Your task to perform on an android device: Search for custom wallets on etsy. Image 0: 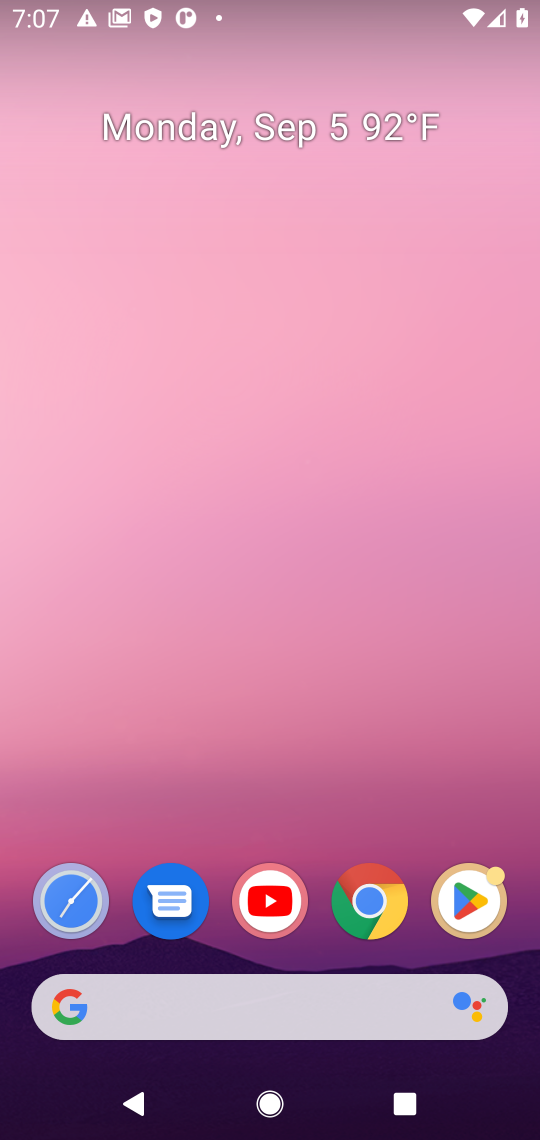
Step 0: click (374, 895)
Your task to perform on an android device: Search for custom wallets on etsy. Image 1: 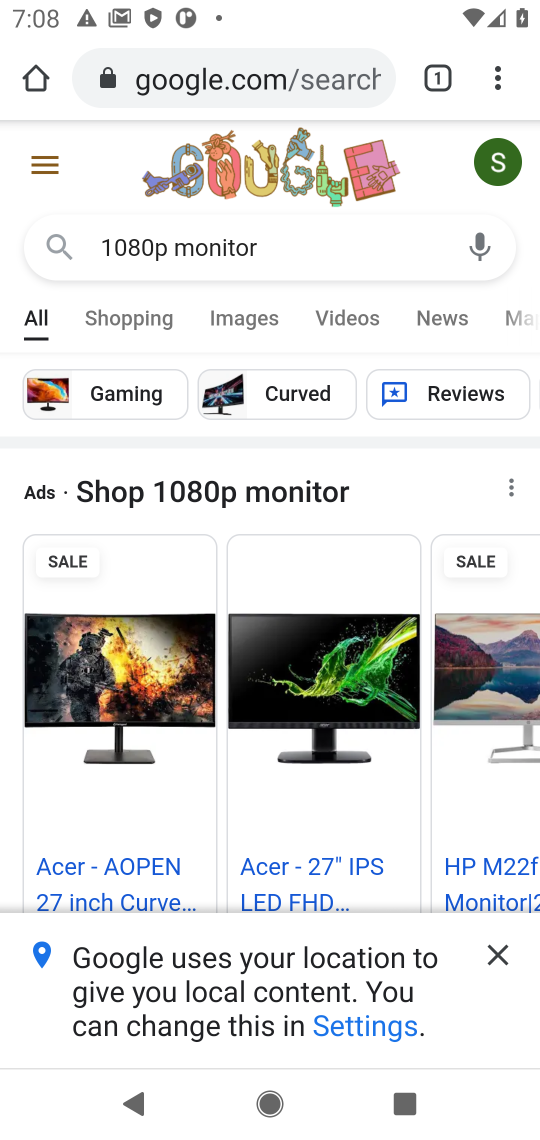
Step 1: click (271, 252)
Your task to perform on an android device: Search for custom wallets on etsy. Image 2: 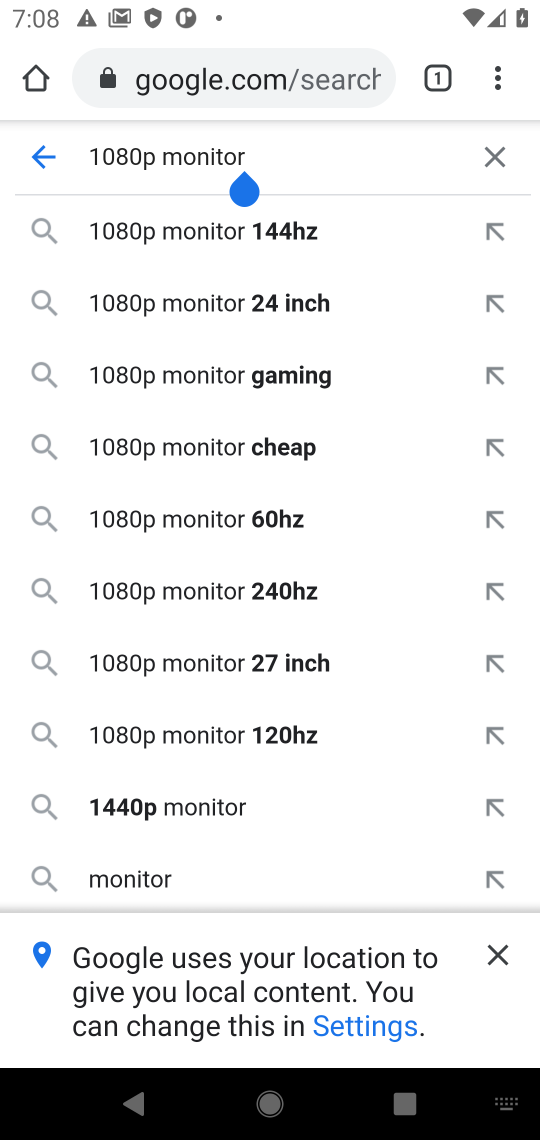
Step 2: click (486, 171)
Your task to perform on an android device: Search for custom wallets on etsy. Image 3: 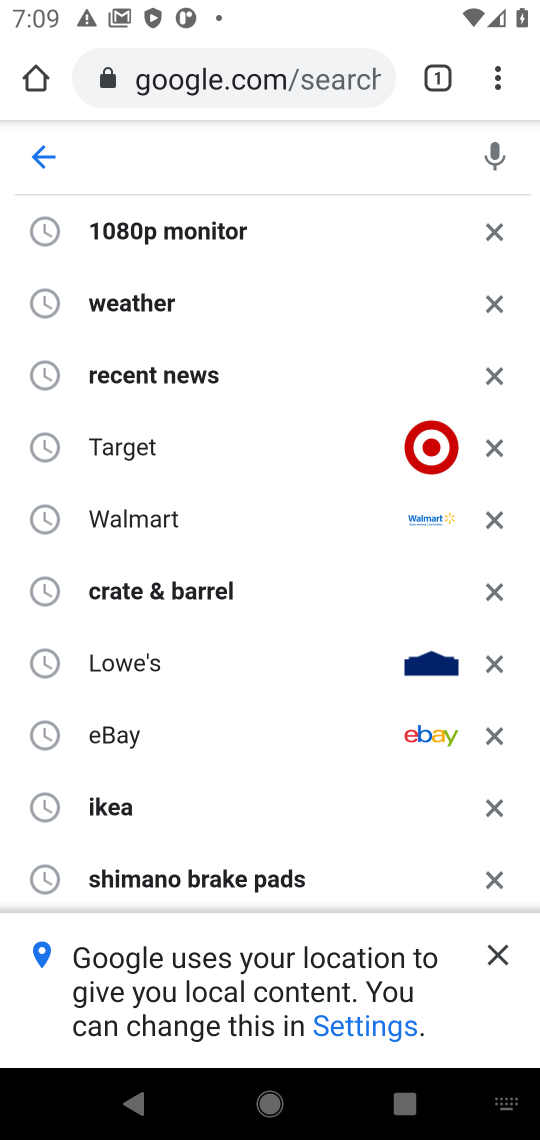
Step 3: type "esty"
Your task to perform on an android device: Search for custom wallets on etsy. Image 4: 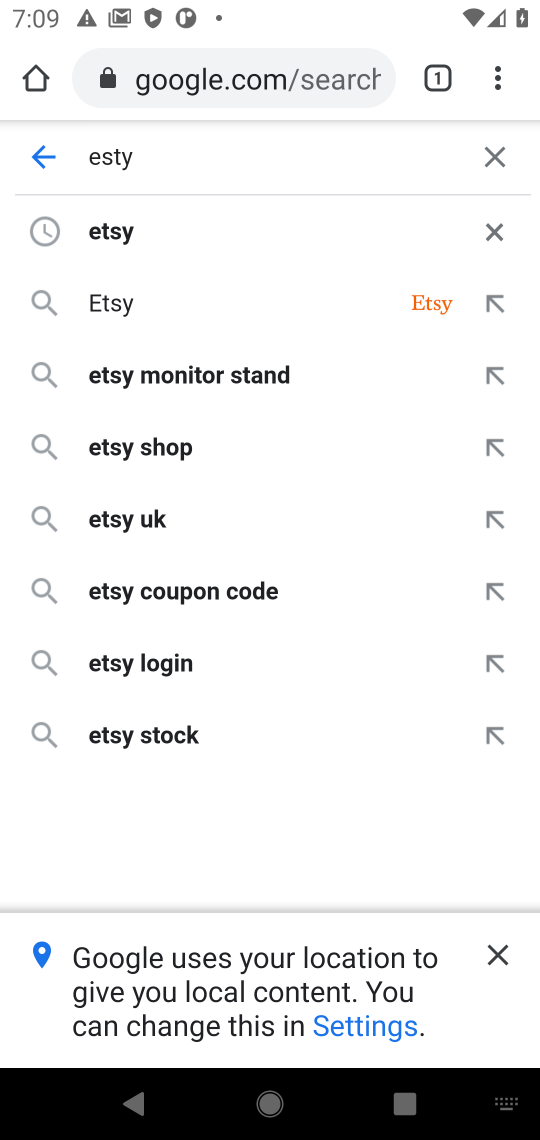
Step 4: click (259, 213)
Your task to perform on an android device: Search for custom wallets on etsy. Image 5: 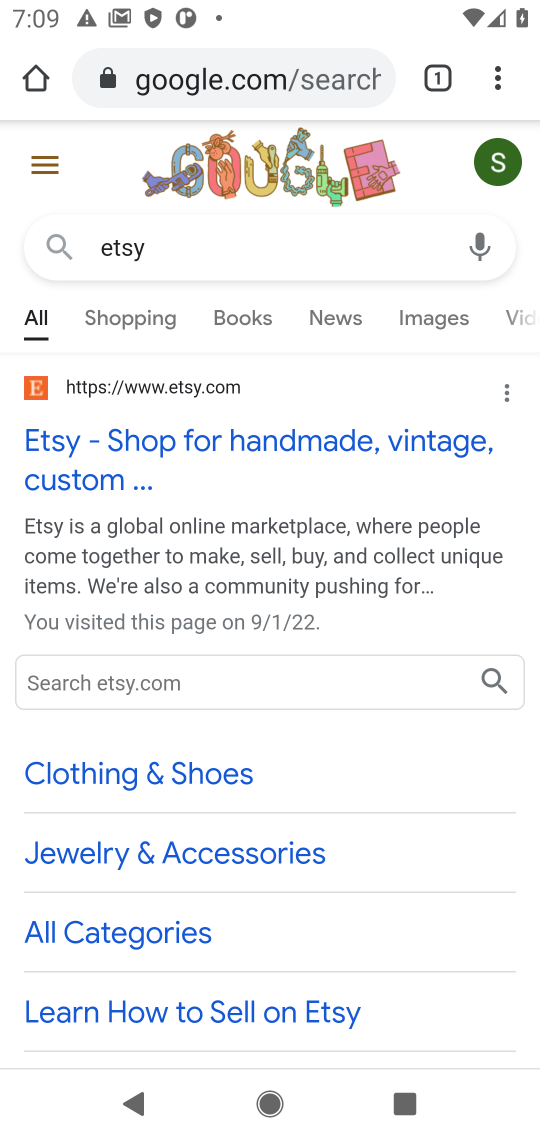
Step 5: click (88, 419)
Your task to perform on an android device: Search for custom wallets on etsy. Image 6: 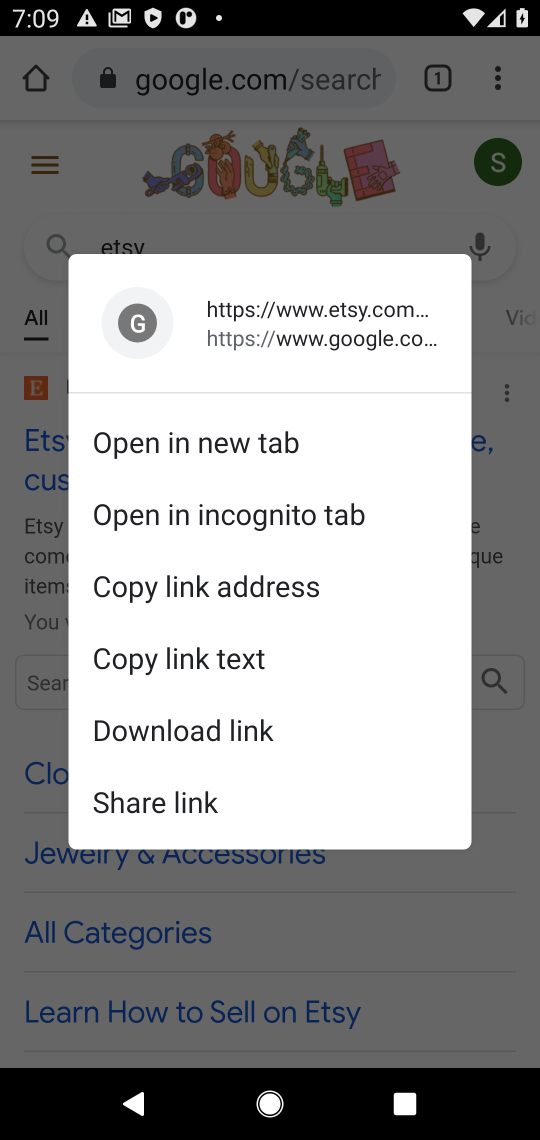
Step 6: click (215, 459)
Your task to perform on an android device: Search for custom wallets on etsy. Image 7: 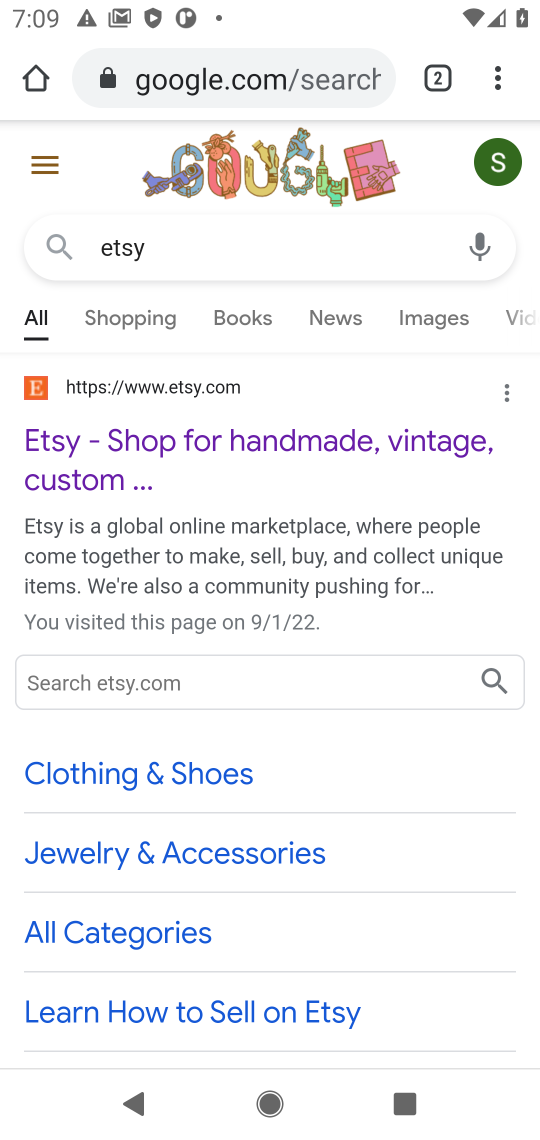
Step 7: click (136, 429)
Your task to perform on an android device: Search for custom wallets on etsy. Image 8: 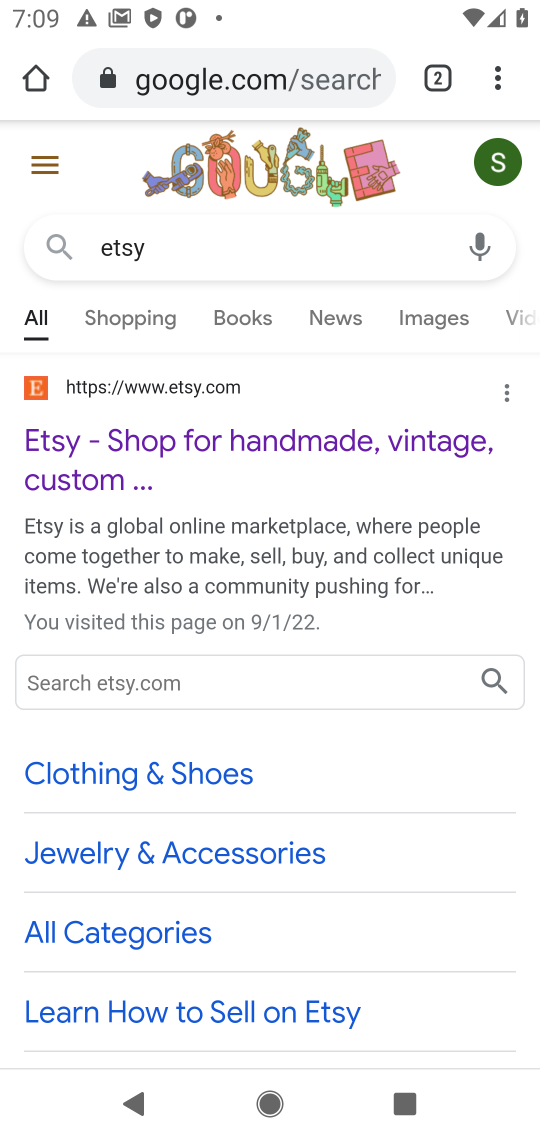
Step 8: click (136, 429)
Your task to perform on an android device: Search for custom wallets on etsy. Image 9: 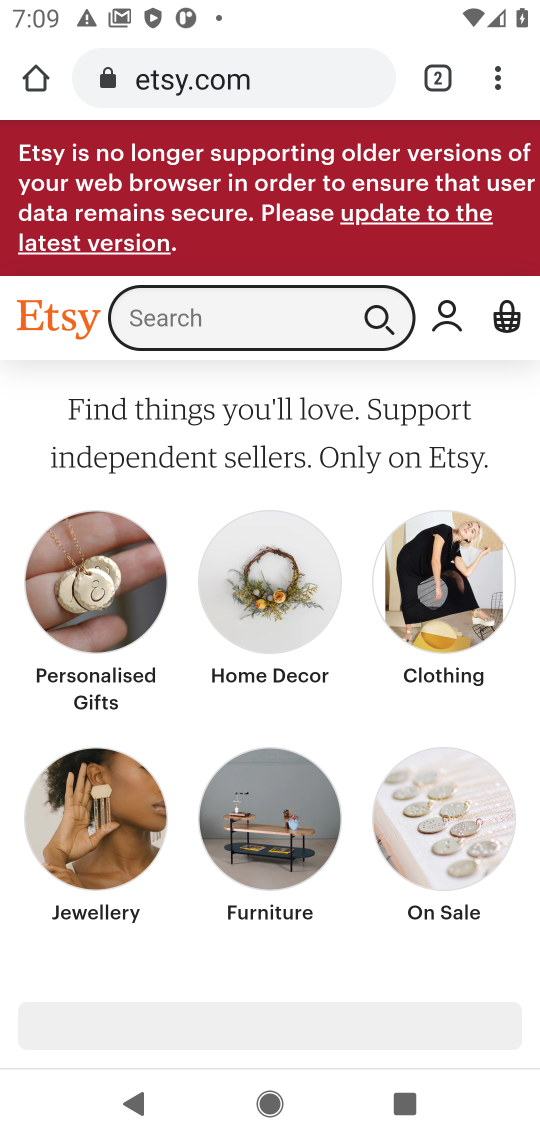
Step 9: click (295, 311)
Your task to perform on an android device: Search for custom wallets on etsy. Image 10: 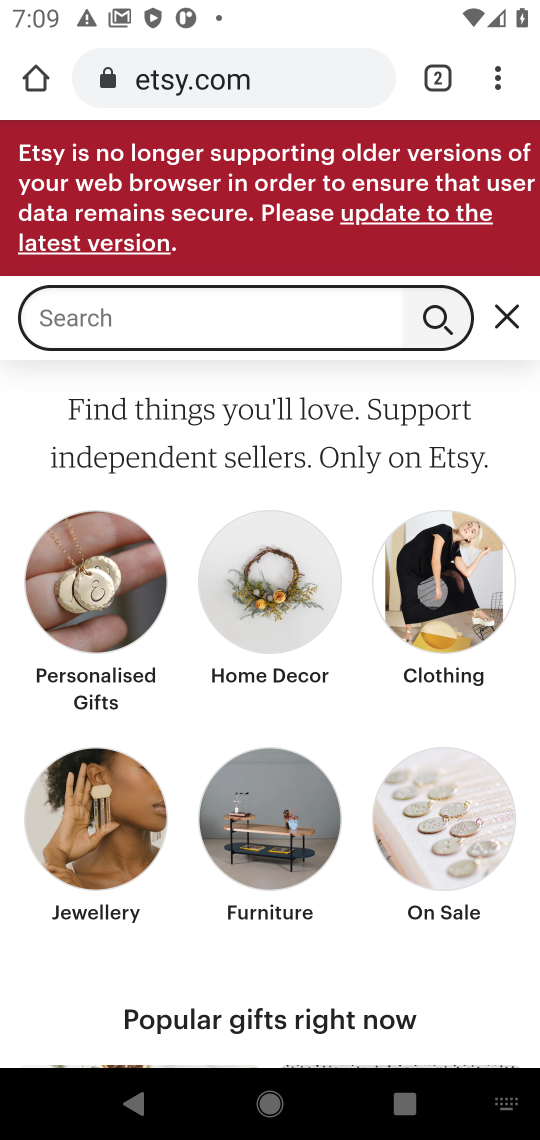
Step 10: type "custom wallet"
Your task to perform on an android device: Search for custom wallets on etsy. Image 11: 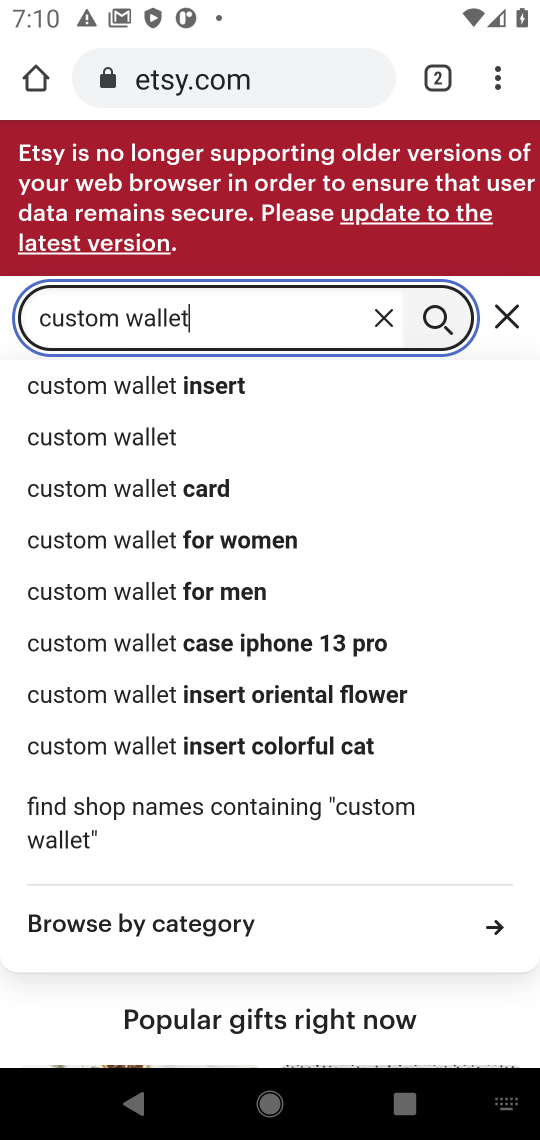
Step 11: click (107, 444)
Your task to perform on an android device: Search for custom wallets on etsy. Image 12: 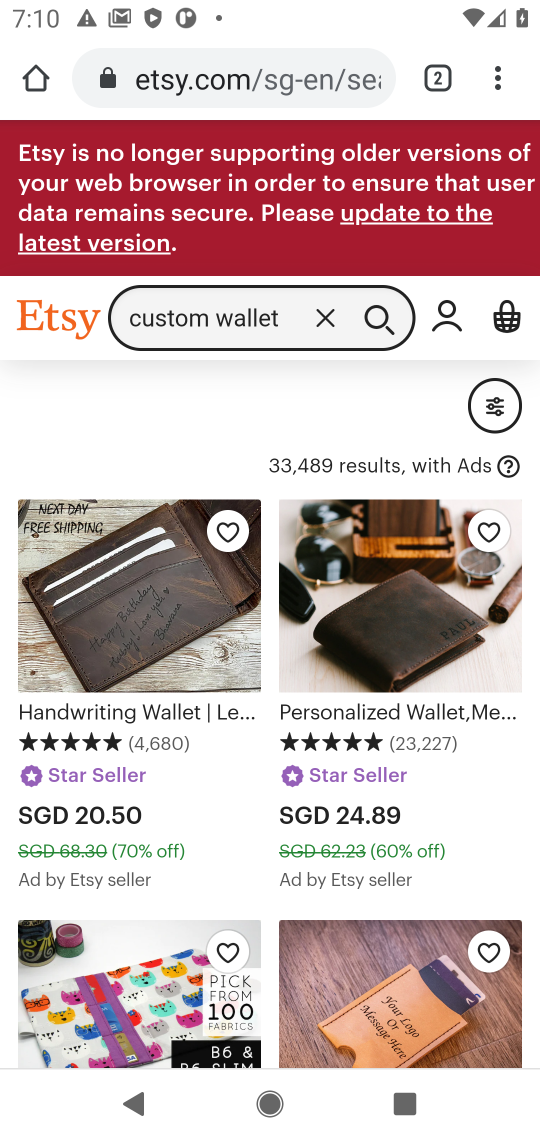
Step 12: click (137, 605)
Your task to perform on an android device: Search for custom wallets on etsy. Image 13: 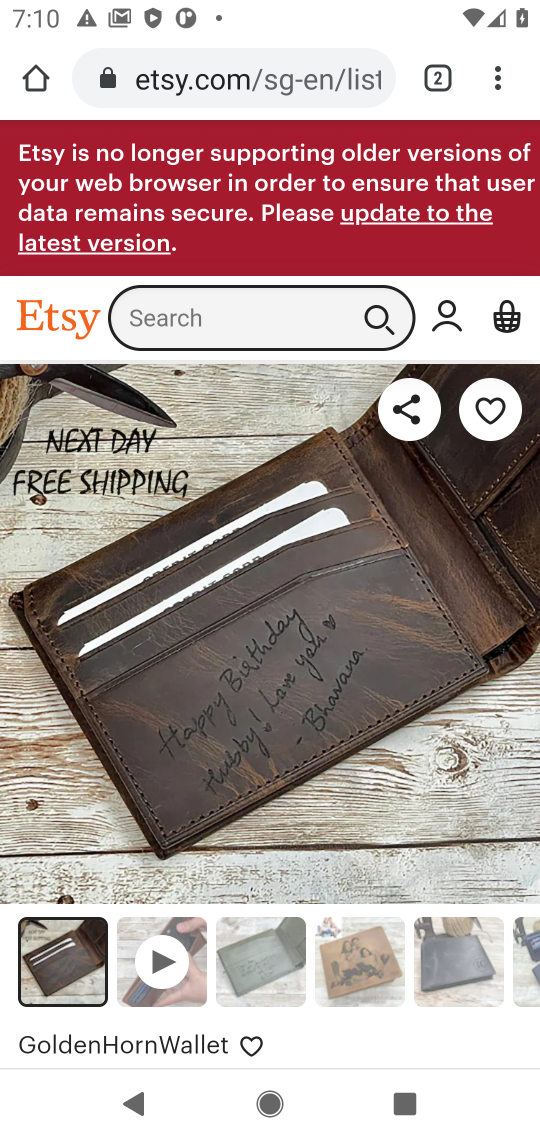
Step 13: task complete